Your task to perform on an android device: turn on wifi Image 0: 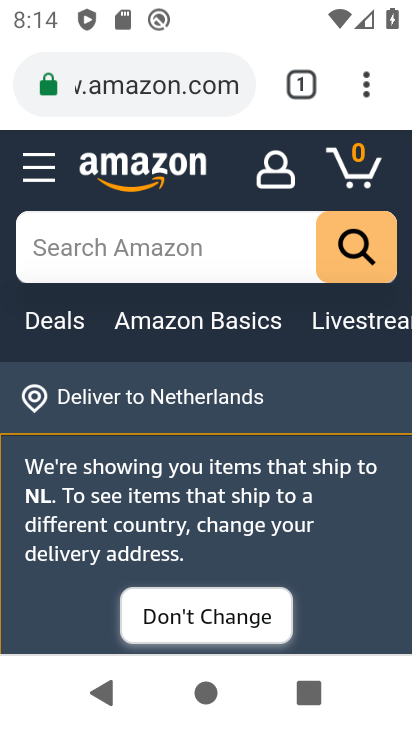
Step 0: drag from (104, 37) to (176, 422)
Your task to perform on an android device: turn on wifi Image 1: 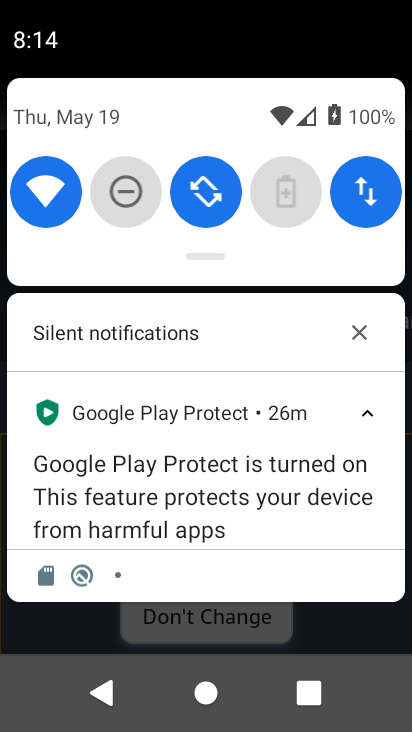
Step 1: task complete